Your task to perform on an android device: Open Amazon Image 0: 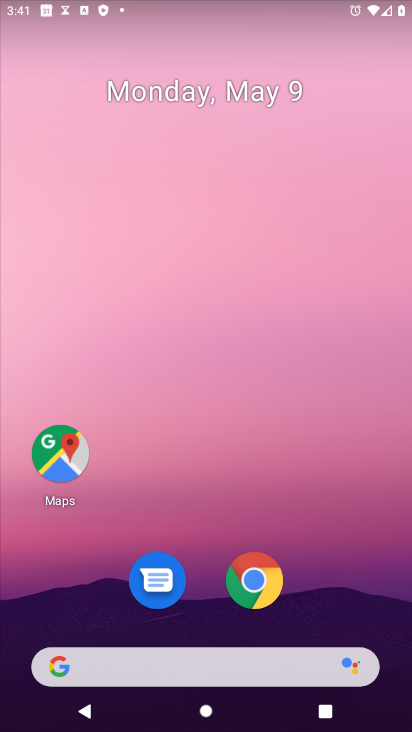
Step 0: click (261, 577)
Your task to perform on an android device: Open Amazon Image 1: 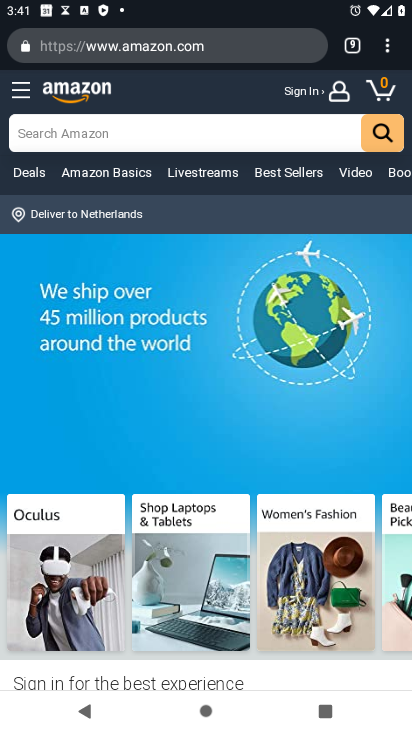
Step 1: task complete